Your task to perform on an android device: turn off javascript in the chrome app Image 0: 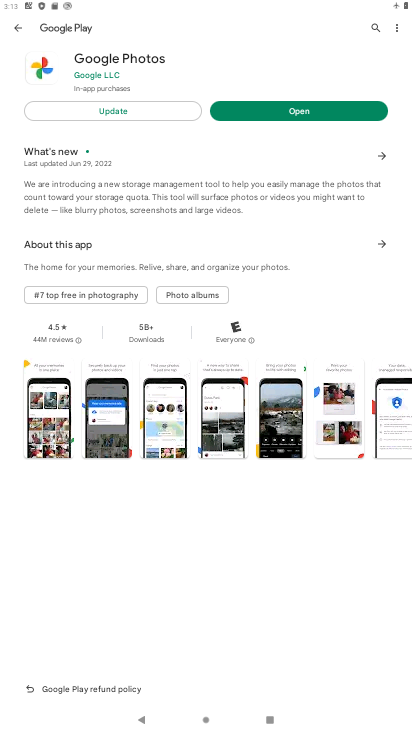
Step 0: press home button
Your task to perform on an android device: turn off javascript in the chrome app Image 1: 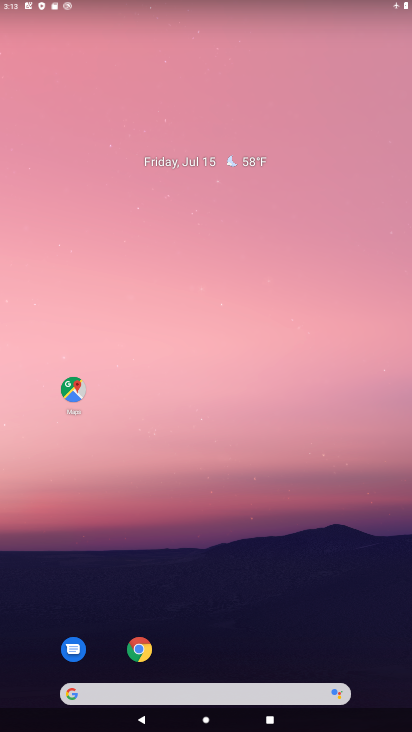
Step 1: click (140, 652)
Your task to perform on an android device: turn off javascript in the chrome app Image 2: 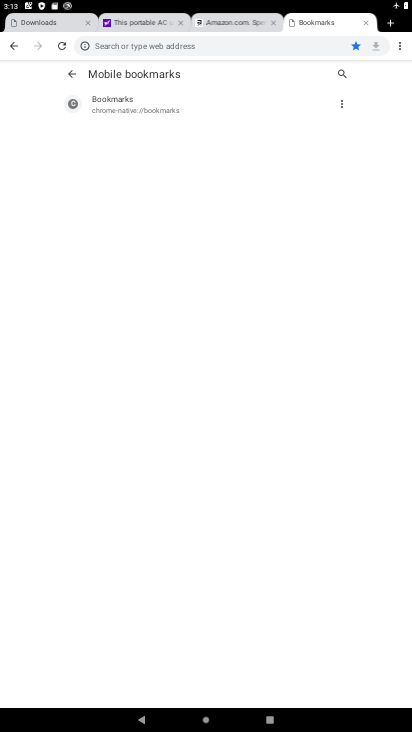
Step 2: click (398, 48)
Your task to perform on an android device: turn off javascript in the chrome app Image 3: 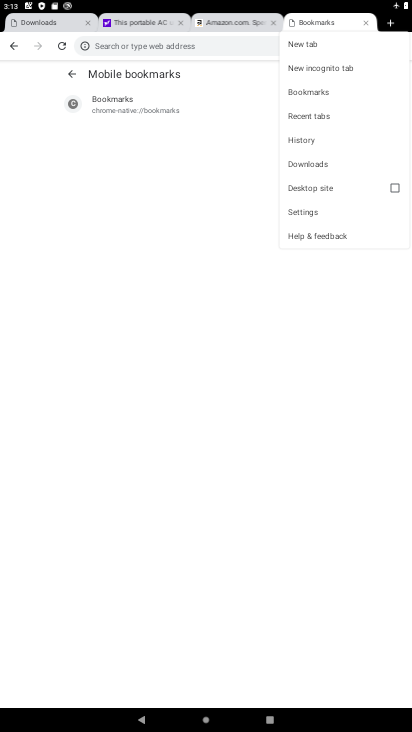
Step 3: click (306, 212)
Your task to perform on an android device: turn off javascript in the chrome app Image 4: 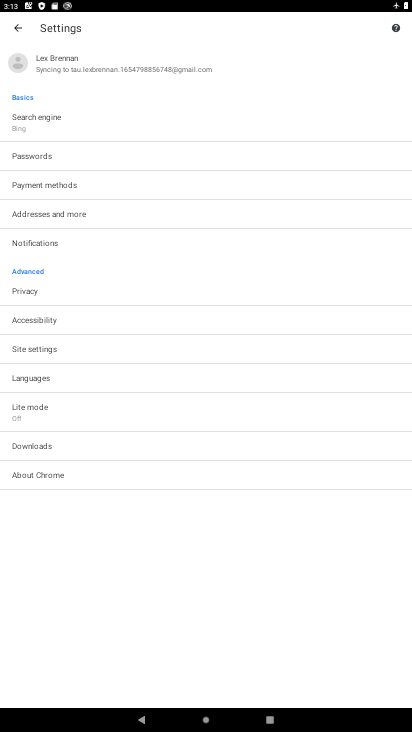
Step 4: click (32, 346)
Your task to perform on an android device: turn off javascript in the chrome app Image 5: 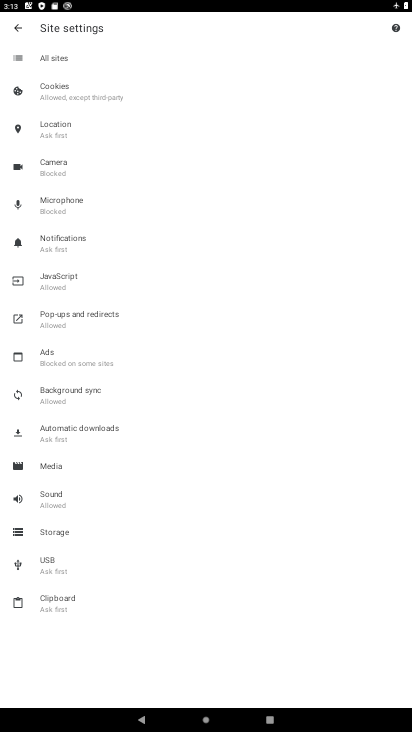
Step 5: click (55, 278)
Your task to perform on an android device: turn off javascript in the chrome app Image 6: 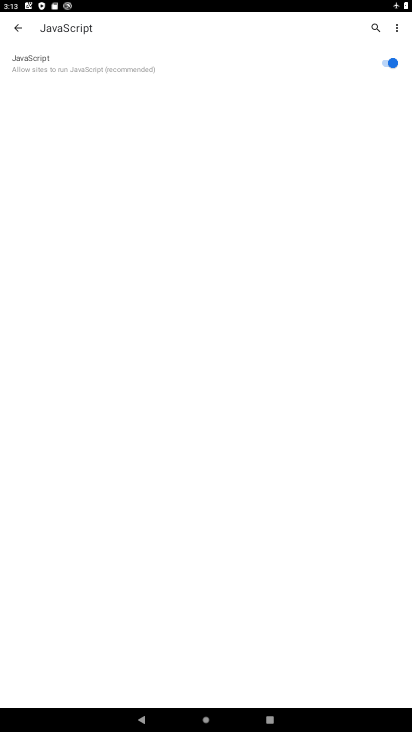
Step 6: click (387, 62)
Your task to perform on an android device: turn off javascript in the chrome app Image 7: 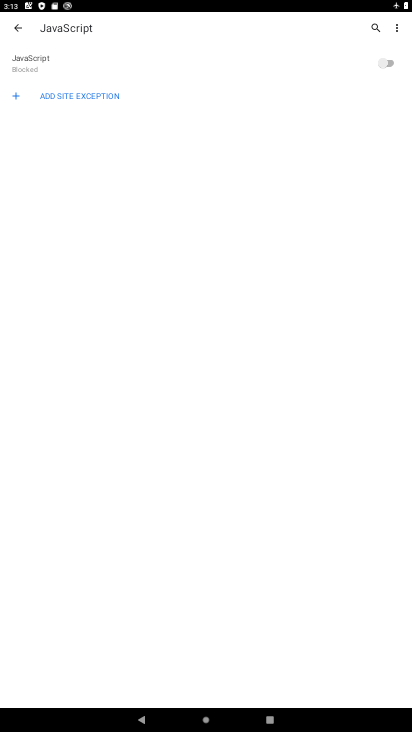
Step 7: task complete